Your task to perform on an android device: set an alarm Image 0: 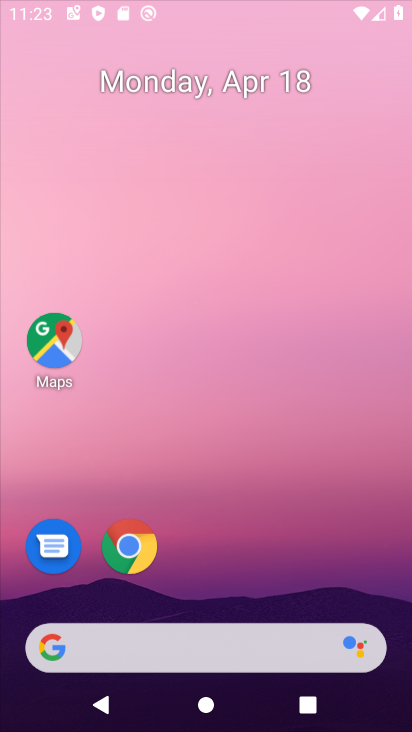
Step 0: drag from (210, 587) to (226, 116)
Your task to perform on an android device: set an alarm Image 1: 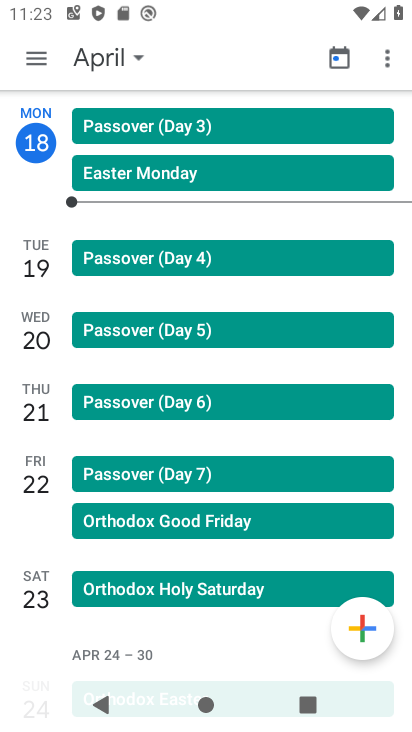
Step 1: press home button
Your task to perform on an android device: set an alarm Image 2: 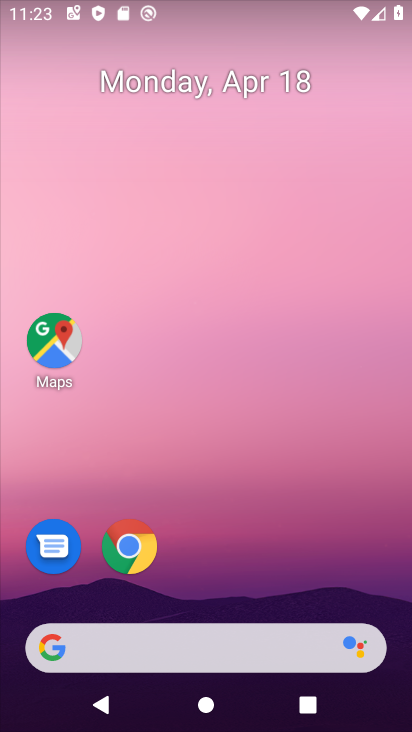
Step 2: drag from (210, 540) to (300, 12)
Your task to perform on an android device: set an alarm Image 3: 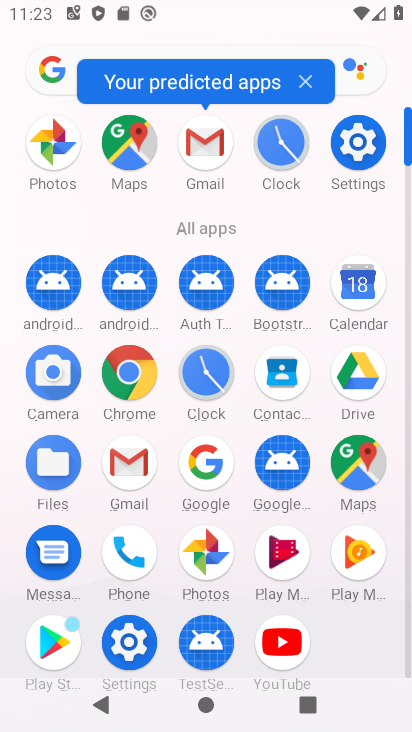
Step 3: click (279, 194)
Your task to perform on an android device: set an alarm Image 4: 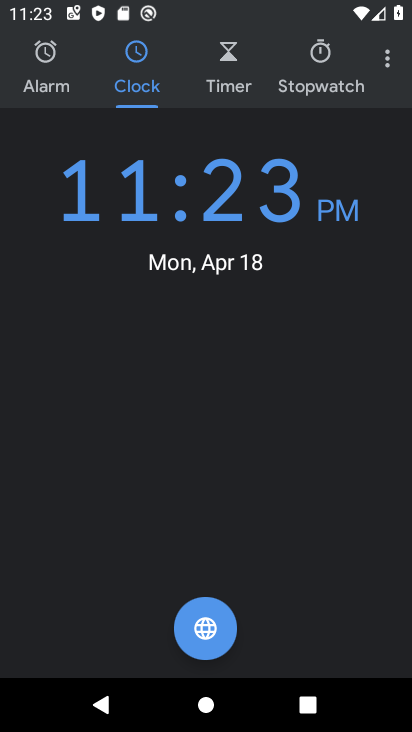
Step 4: click (53, 82)
Your task to perform on an android device: set an alarm Image 5: 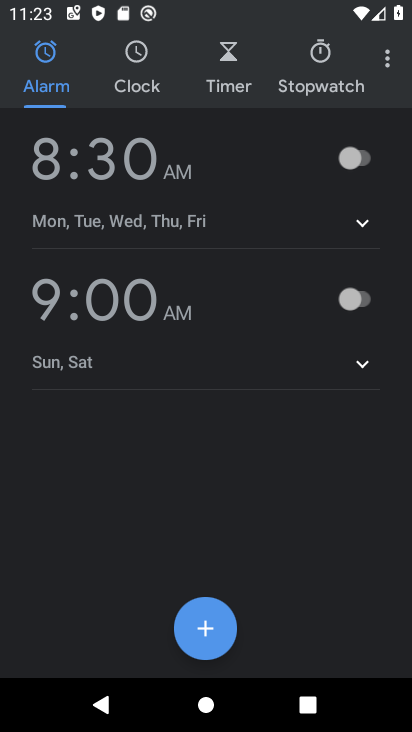
Step 5: click (190, 655)
Your task to perform on an android device: set an alarm Image 6: 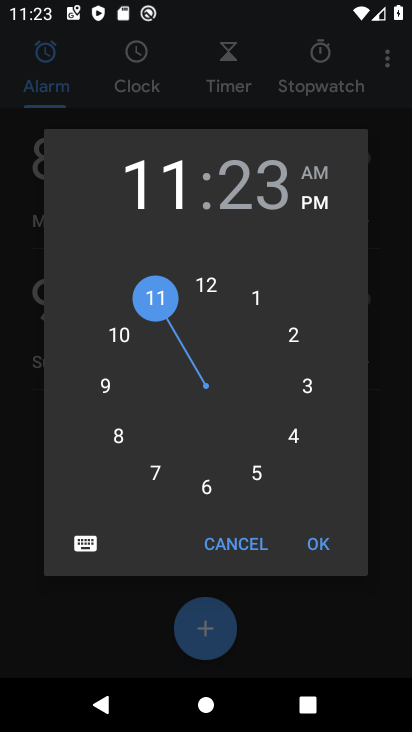
Step 6: click (101, 396)
Your task to perform on an android device: set an alarm Image 7: 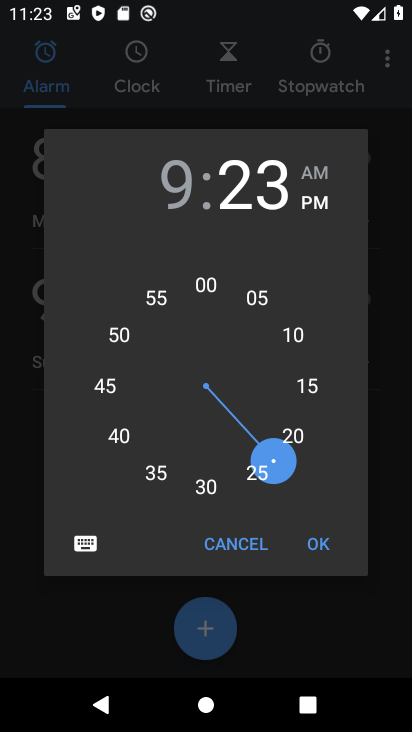
Step 7: click (198, 490)
Your task to perform on an android device: set an alarm Image 8: 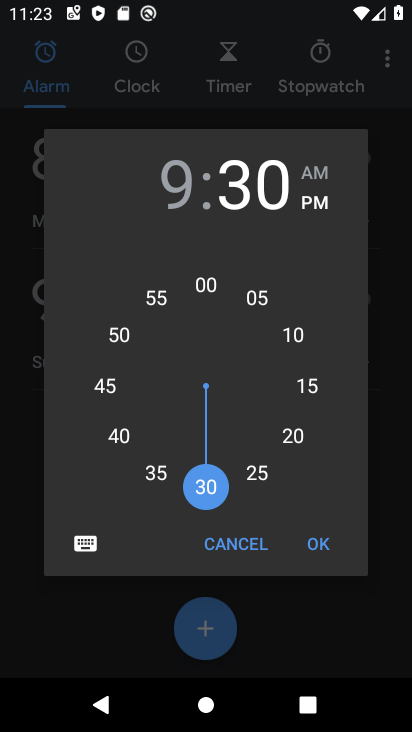
Step 8: click (289, 327)
Your task to perform on an android device: set an alarm Image 9: 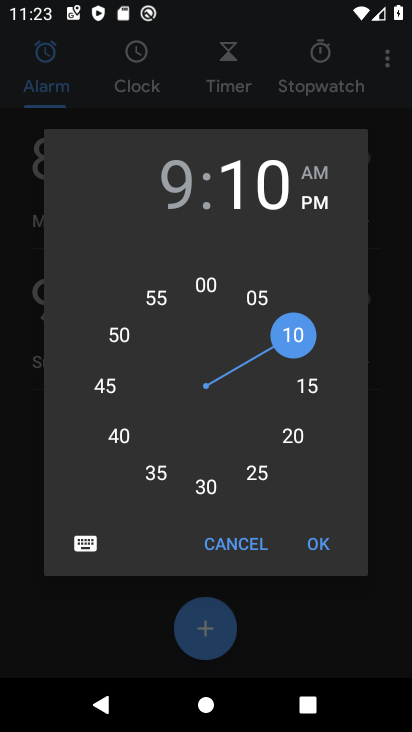
Step 9: click (322, 554)
Your task to perform on an android device: set an alarm Image 10: 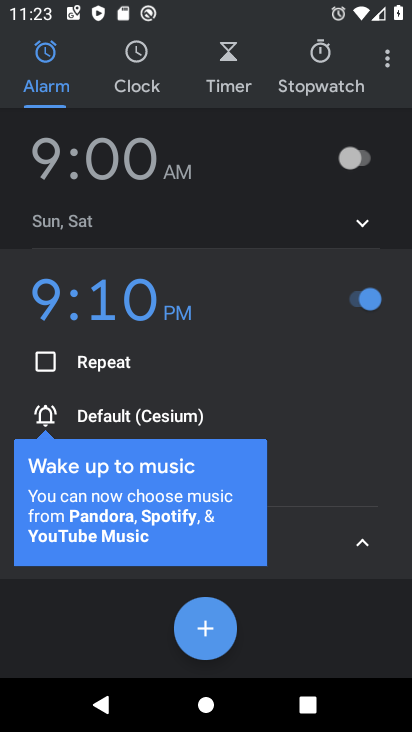
Step 10: task complete